Your task to perform on an android device: turn off notifications settings in the gmail app Image 0: 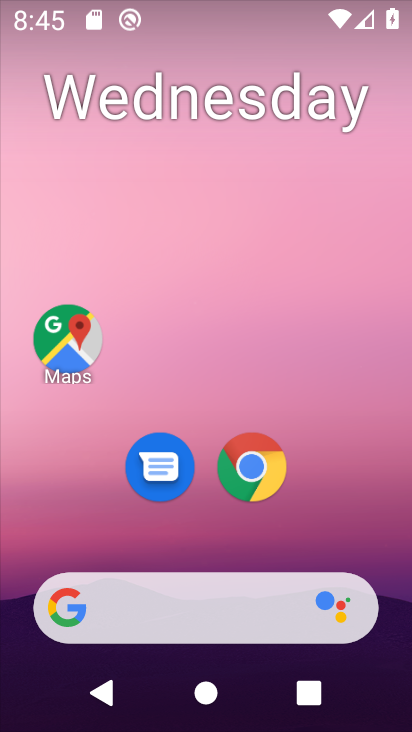
Step 0: drag from (369, 497) to (357, 52)
Your task to perform on an android device: turn off notifications settings in the gmail app Image 1: 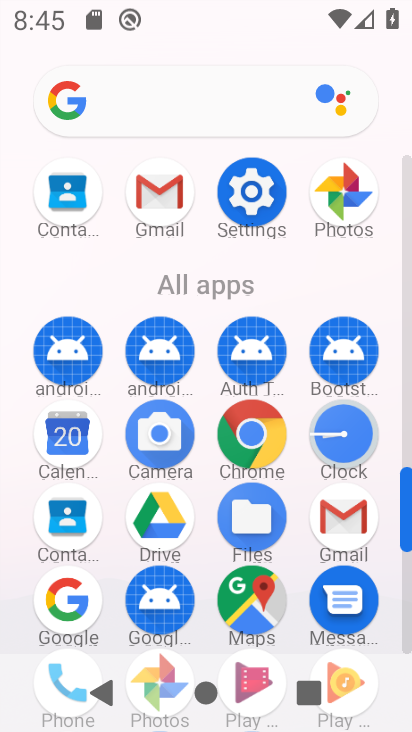
Step 1: click (160, 210)
Your task to perform on an android device: turn off notifications settings in the gmail app Image 2: 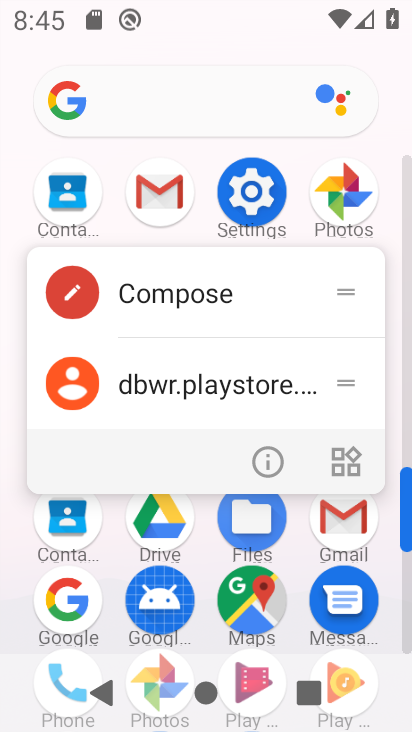
Step 2: click (160, 210)
Your task to perform on an android device: turn off notifications settings in the gmail app Image 3: 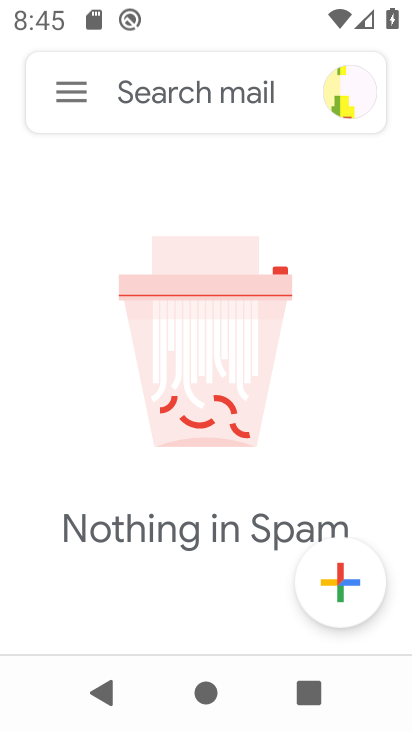
Step 3: click (62, 76)
Your task to perform on an android device: turn off notifications settings in the gmail app Image 4: 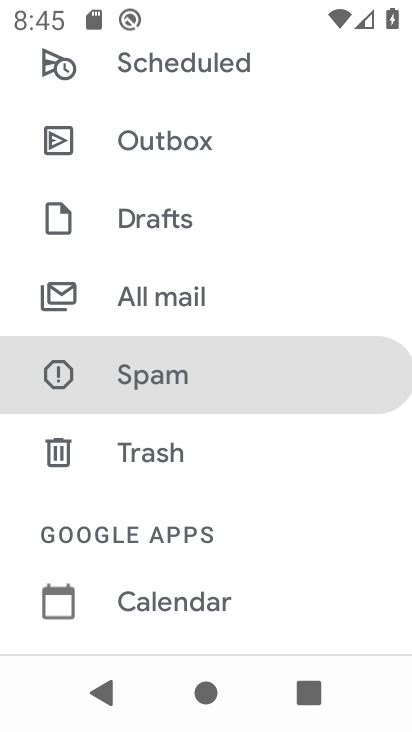
Step 4: drag from (181, 602) to (238, 235)
Your task to perform on an android device: turn off notifications settings in the gmail app Image 5: 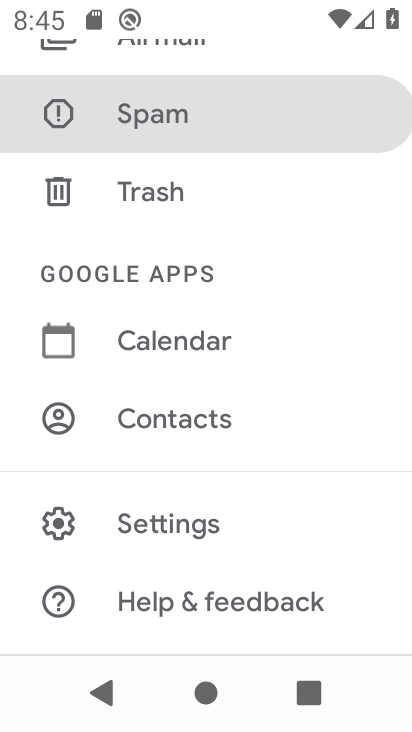
Step 5: click (189, 522)
Your task to perform on an android device: turn off notifications settings in the gmail app Image 6: 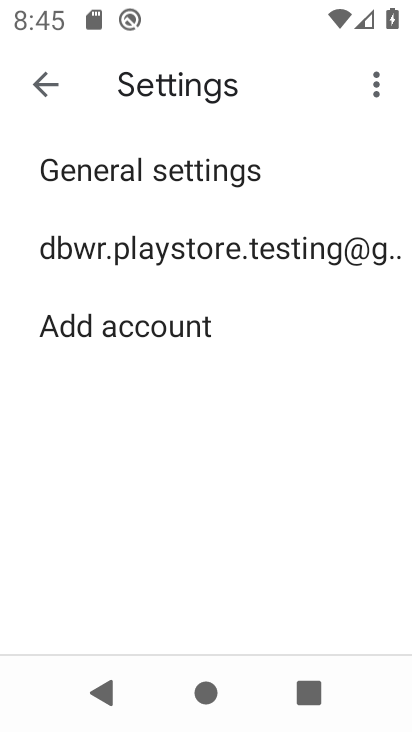
Step 6: click (113, 239)
Your task to perform on an android device: turn off notifications settings in the gmail app Image 7: 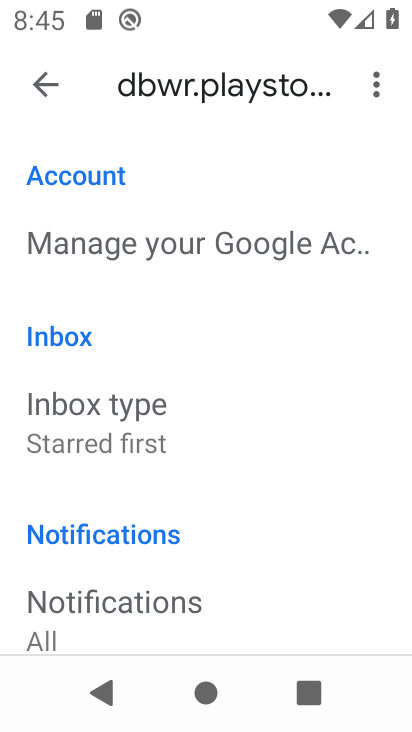
Step 7: drag from (135, 582) to (225, 221)
Your task to perform on an android device: turn off notifications settings in the gmail app Image 8: 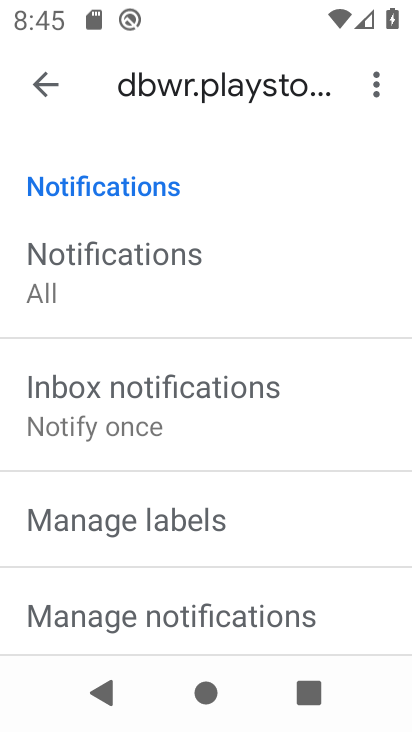
Step 8: click (147, 270)
Your task to perform on an android device: turn off notifications settings in the gmail app Image 9: 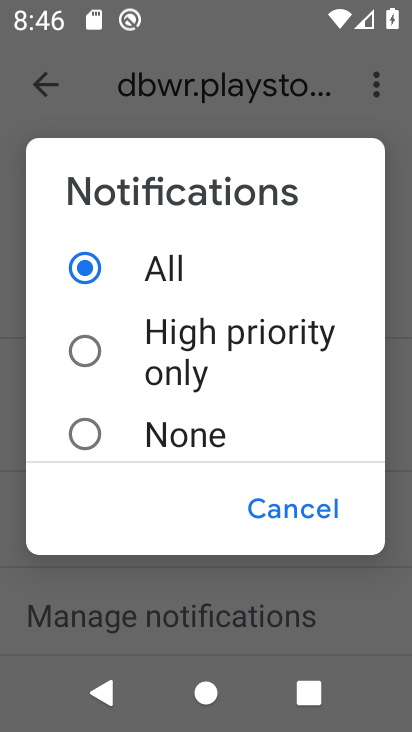
Step 9: click (88, 428)
Your task to perform on an android device: turn off notifications settings in the gmail app Image 10: 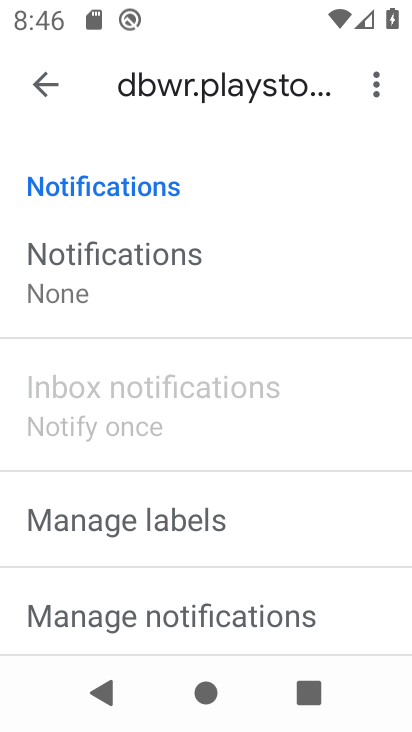
Step 10: task complete